Your task to perform on an android device: Open Maps and search for coffee Image 0: 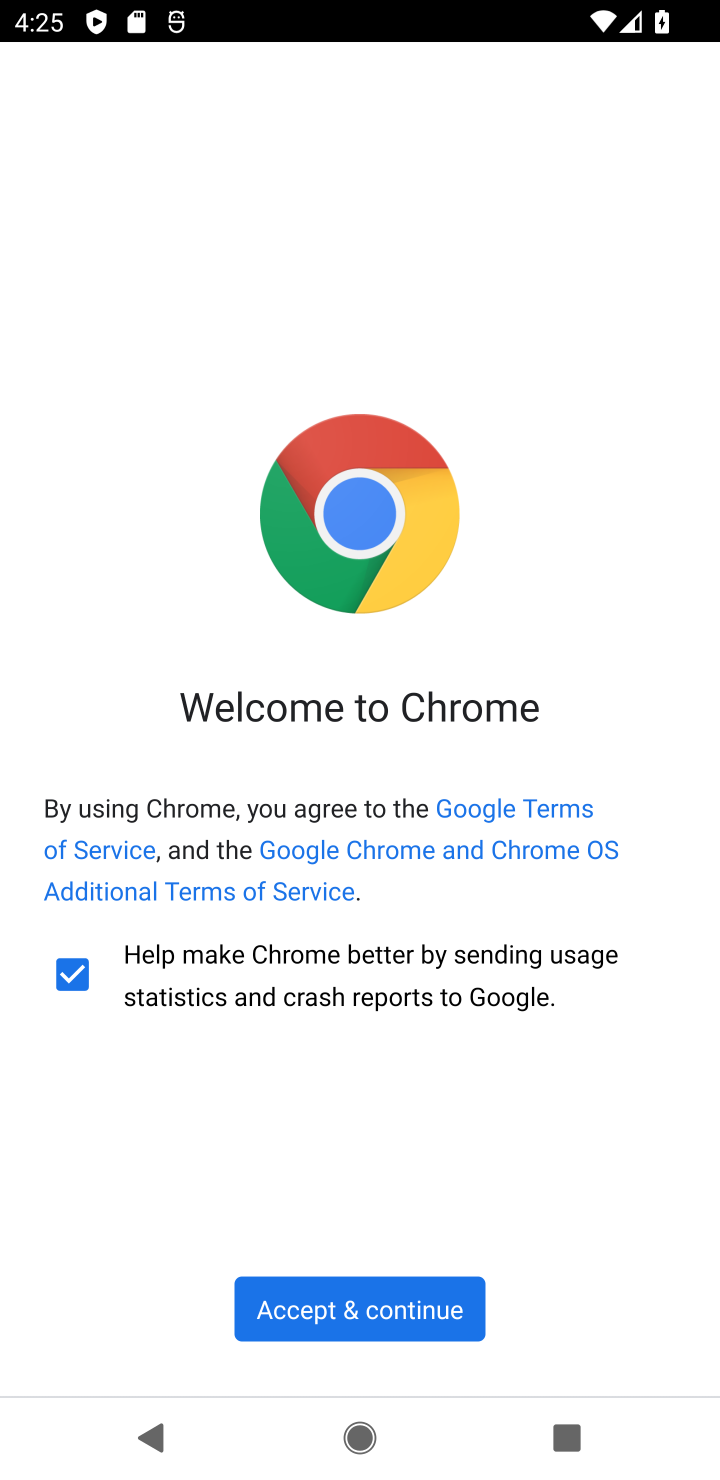
Step 0: click (404, 1332)
Your task to perform on an android device: Open Maps and search for coffee Image 1: 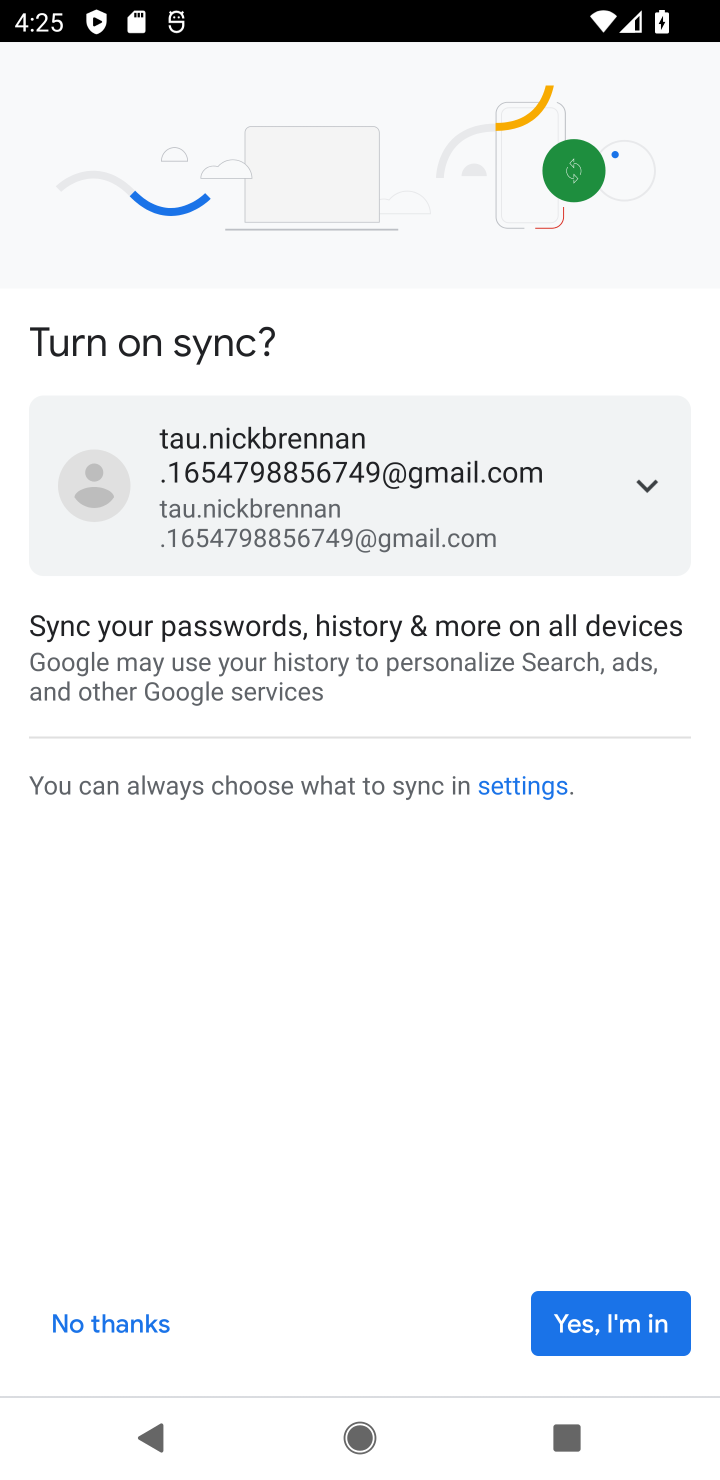
Step 1: press home button
Your task to perform on an android device: Open Maps and search for coffee Image 2: 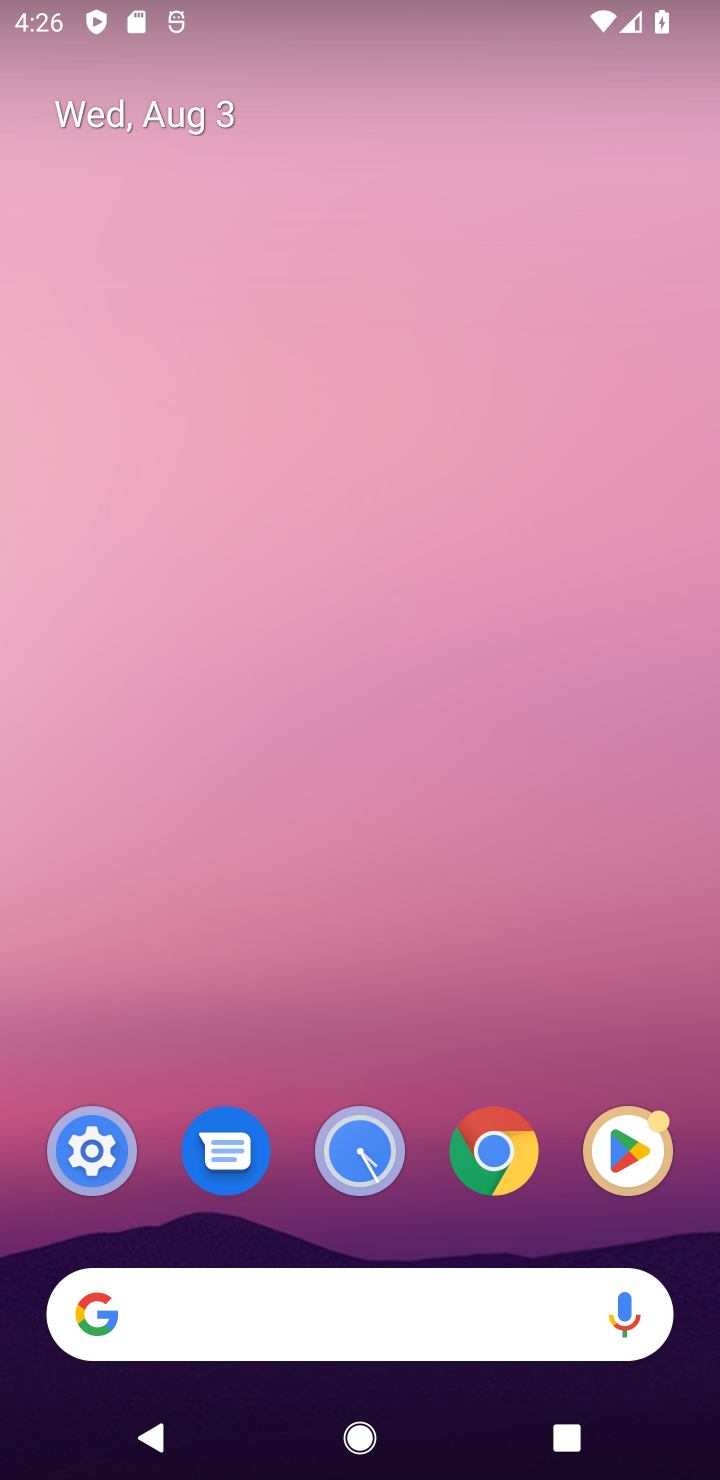
Step 2: drag from (487, 1047) to (433, 205)
Your task to perform on an android device: Open Maps and search for coffee Image 3: 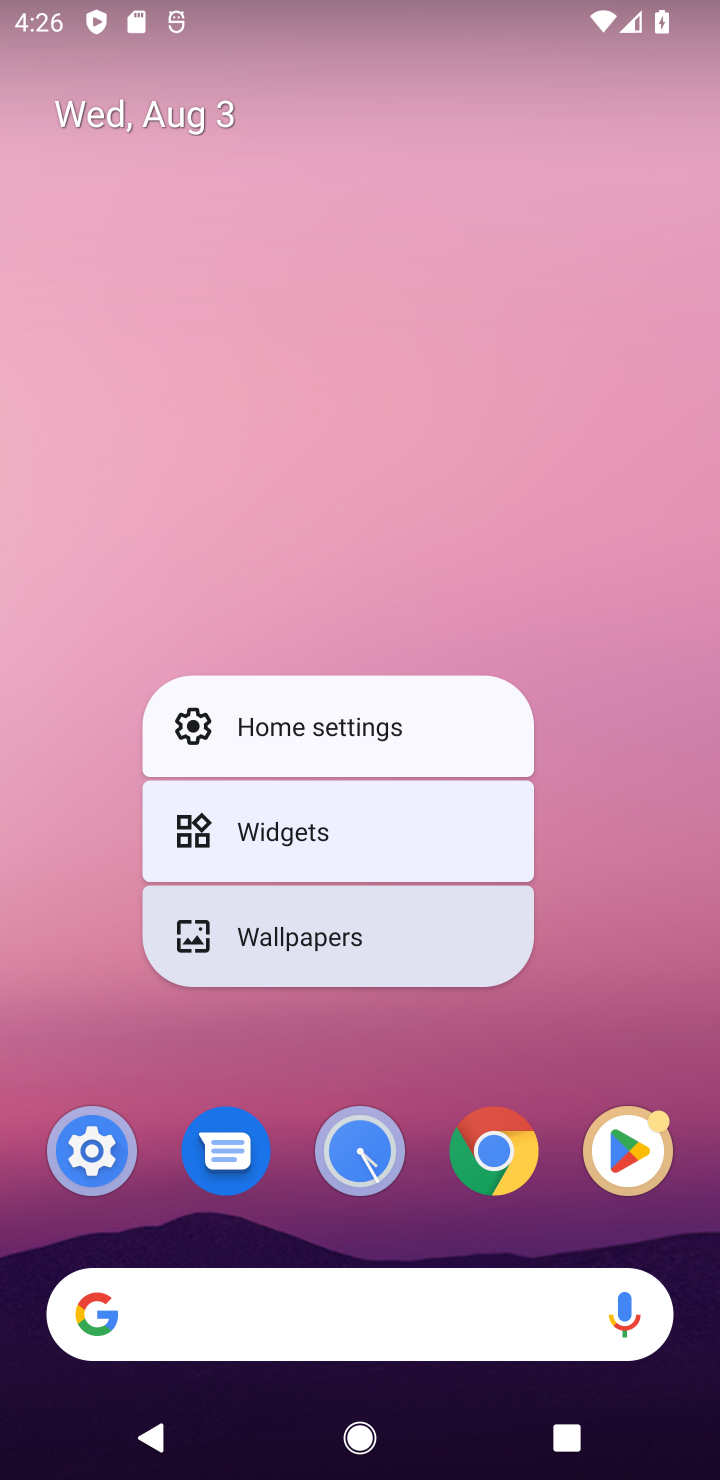
Step 3: click (650, 958)
Your task to perform on an android device: Open Maps and search for coffee Image 4: 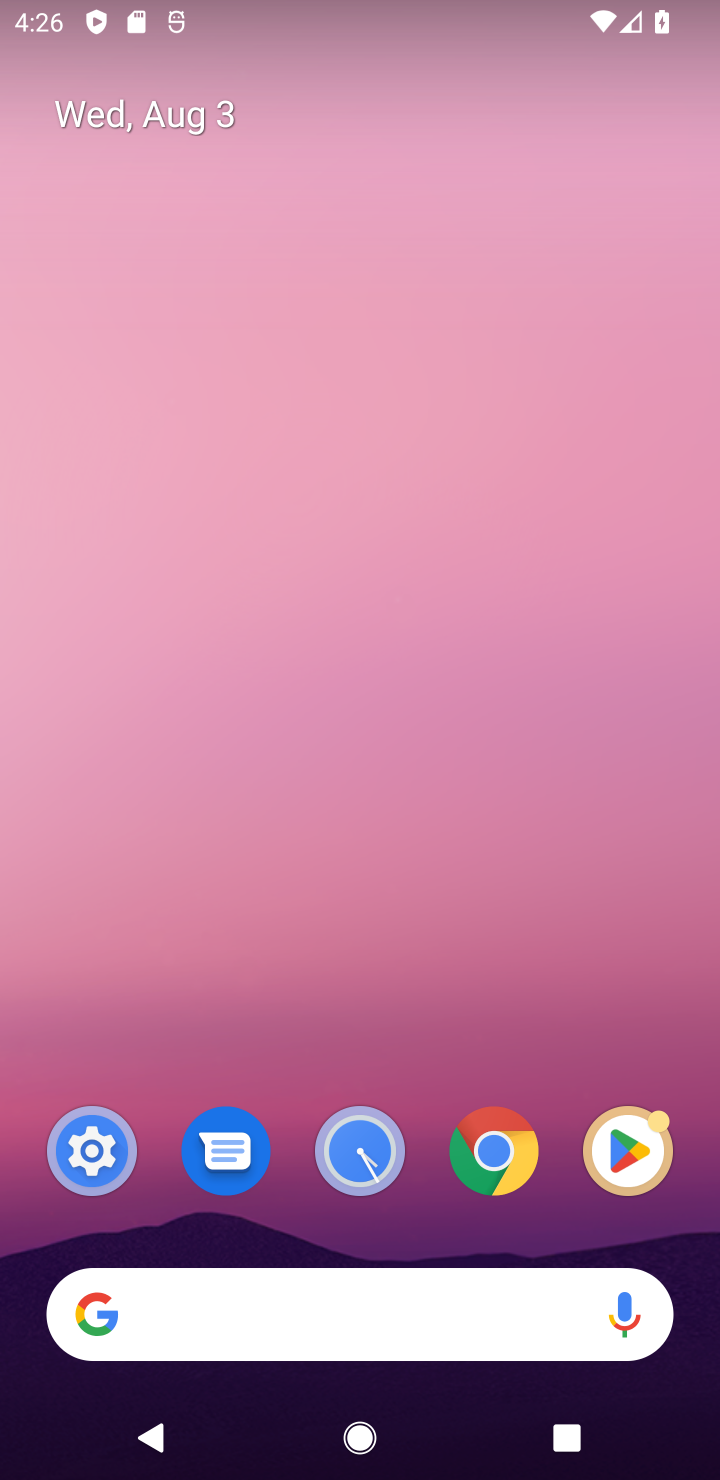
Step 4: drag from (649, 1043) to (559, 316)
Your task to perform on an android device: Open Maps and search for coffee Image 5: 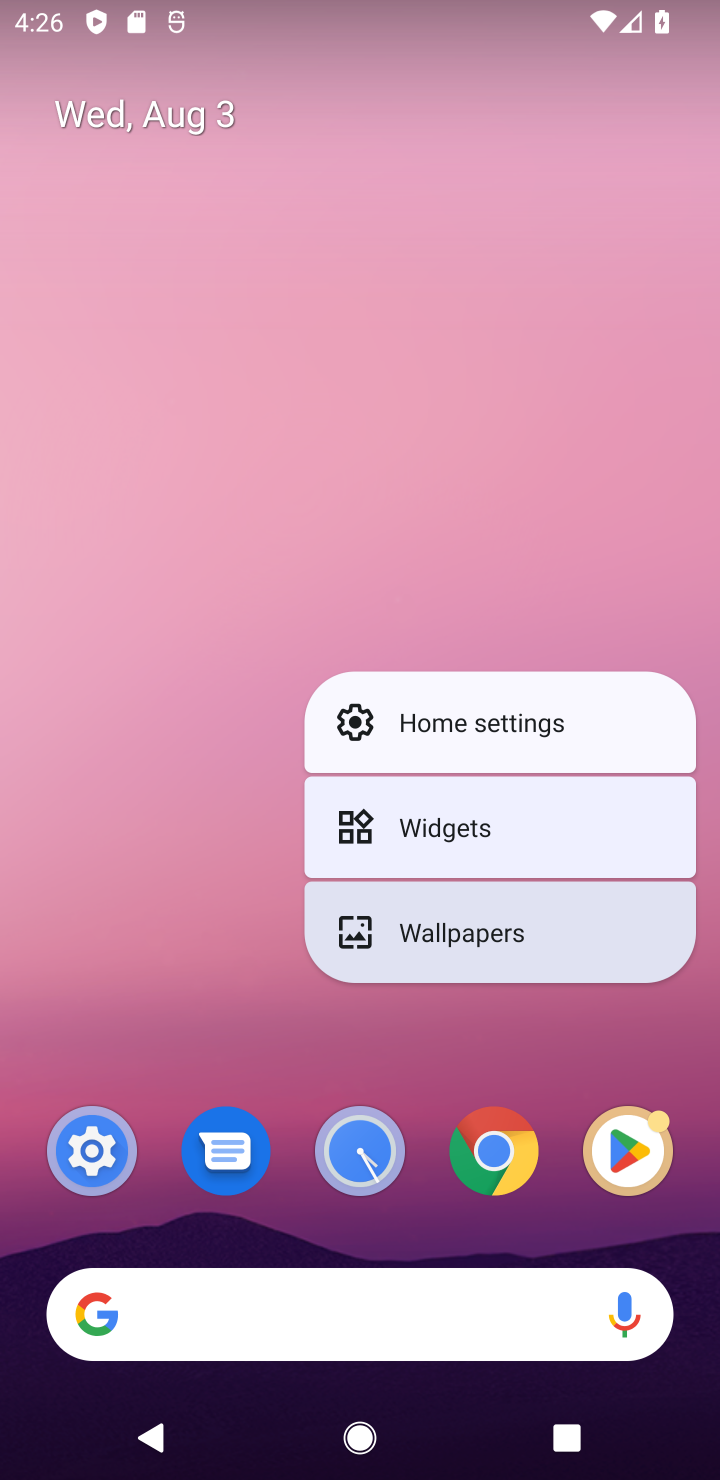
Step 5: click (197, 1029)
Your task to perform on an android device: Open Maps and search for coffee Image 6: 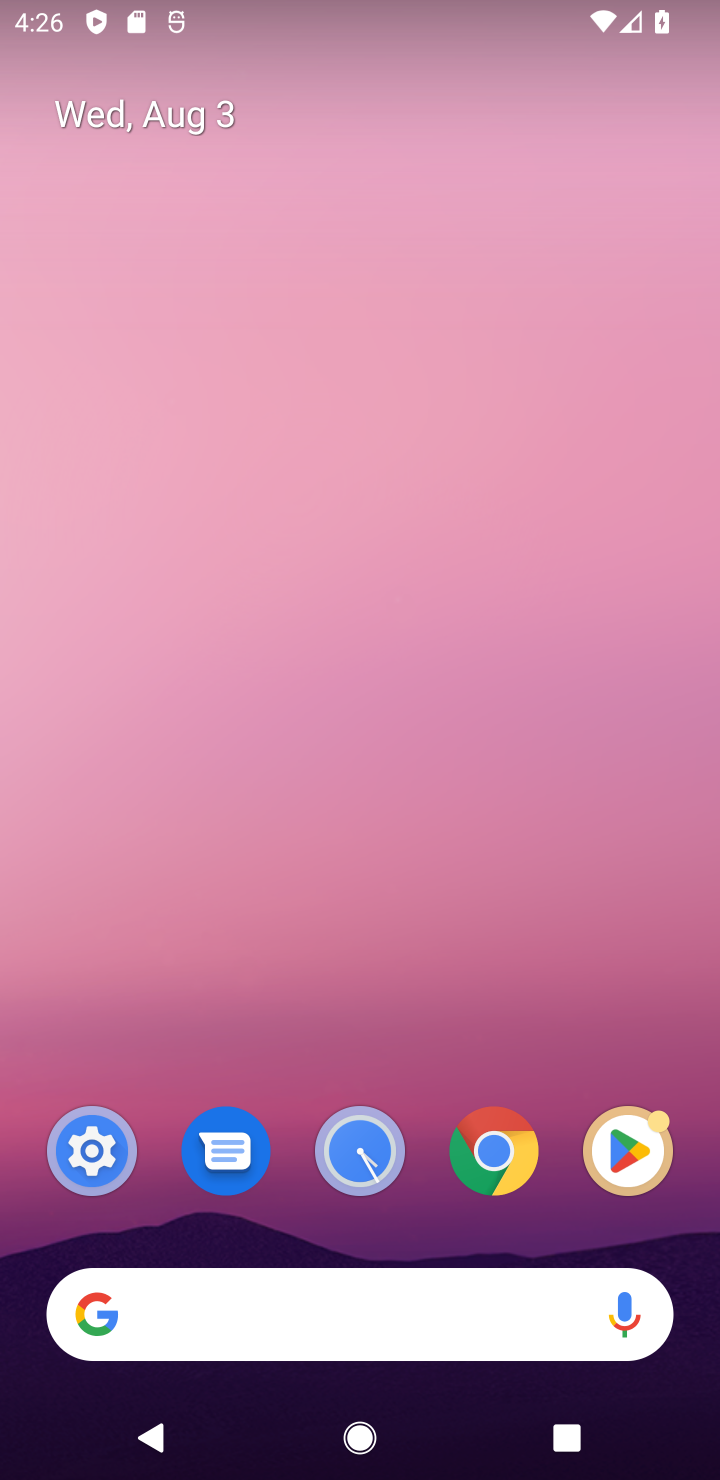
Step 6: drag from (261, 1072) to (297, 215)
Your task to perform on an android device: Open Maps and search for coffee Image 7: 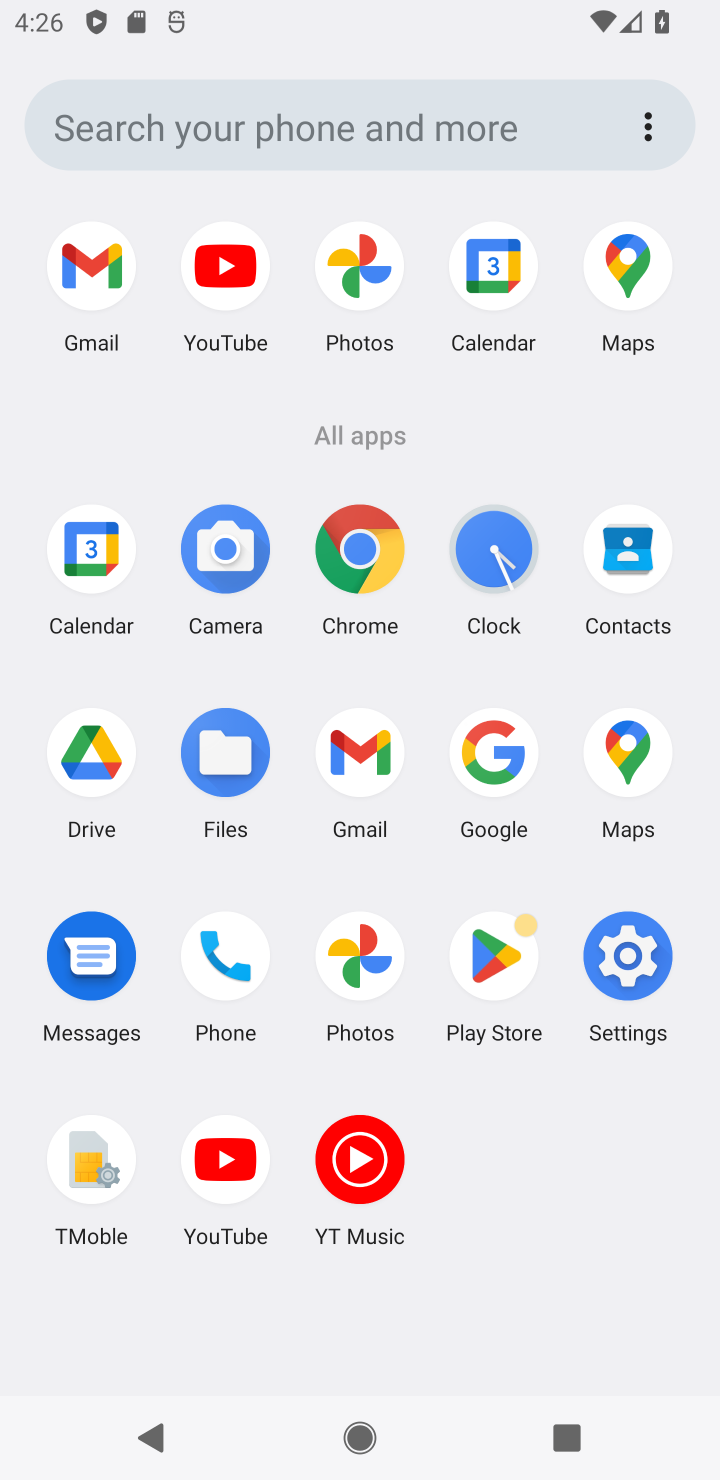
Step 7: click (620, 738)
Your task to perform on an android device: Open Maps and search for coffee Image 8: 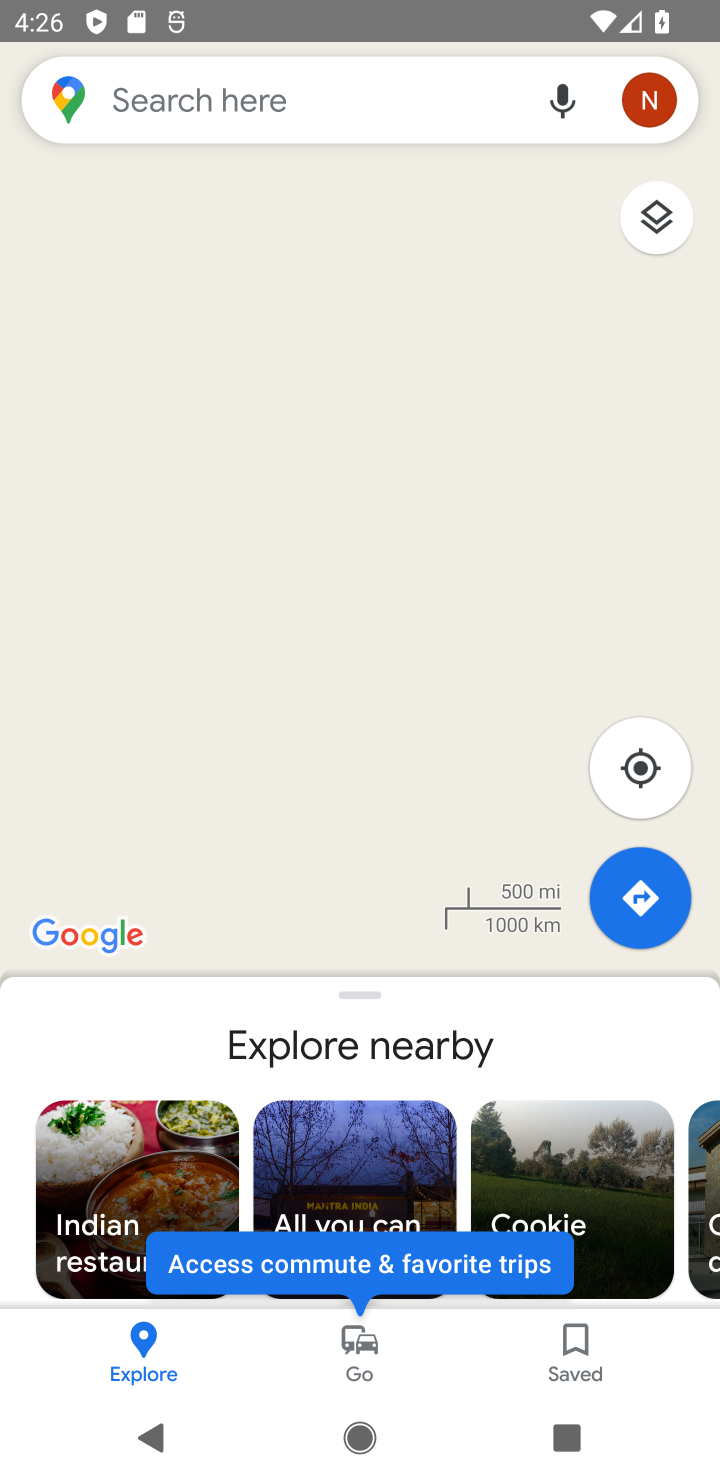
Step 8: click (257, 109)
Your task to perform on an android device: Open Maps and search for coffee Image 9: 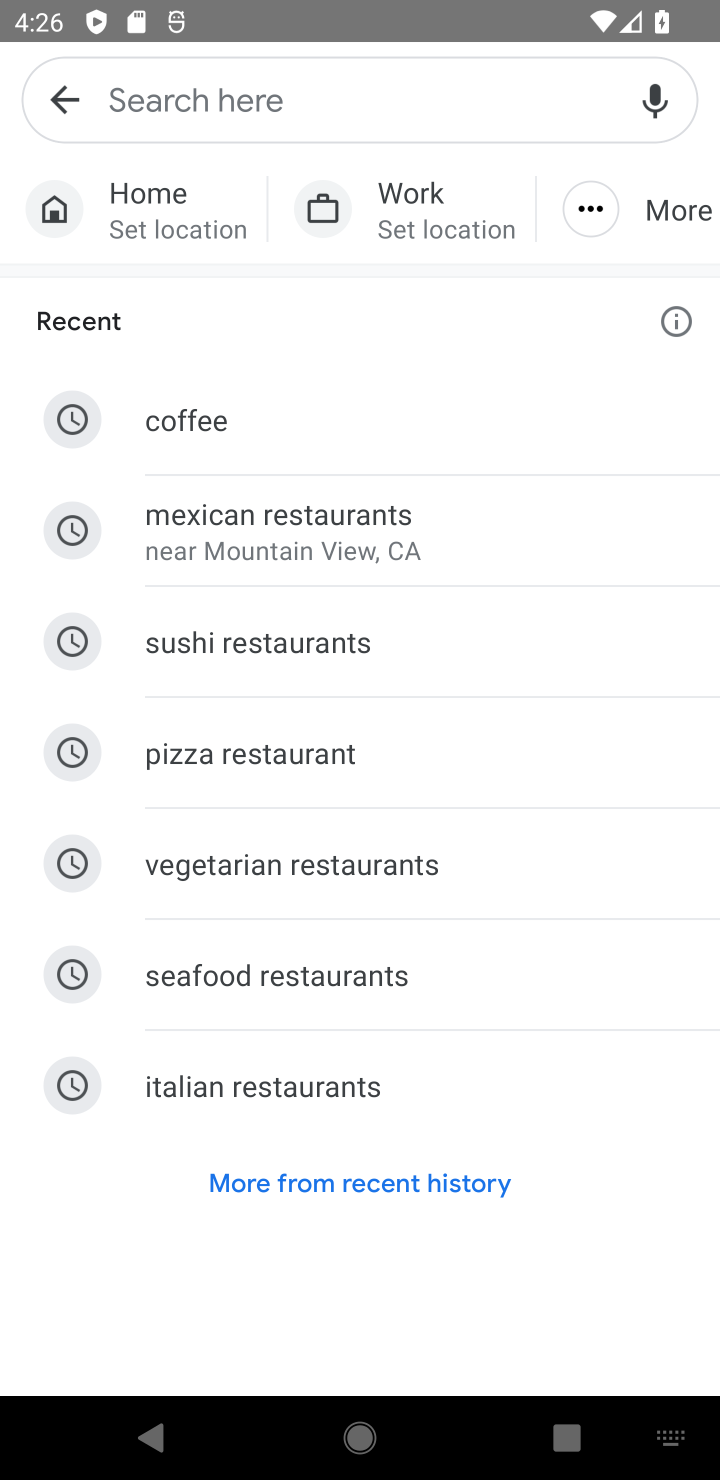
Step 9: type "coffee"
Your task to perform on an android device: Open Maps and search for coffee Image 10: 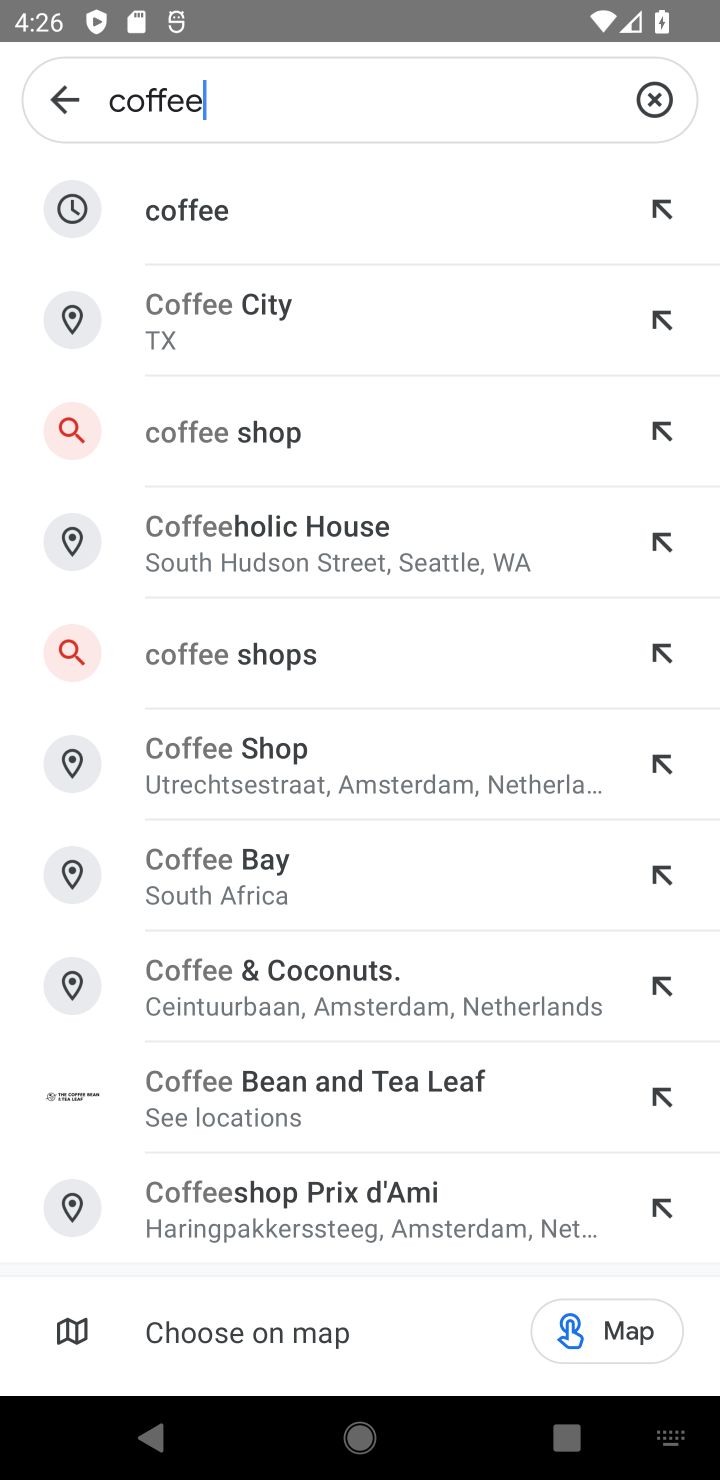
Step 10: click (381, 207)
Your task to perform on an android device: Open Maps and search for coffee Image 11: 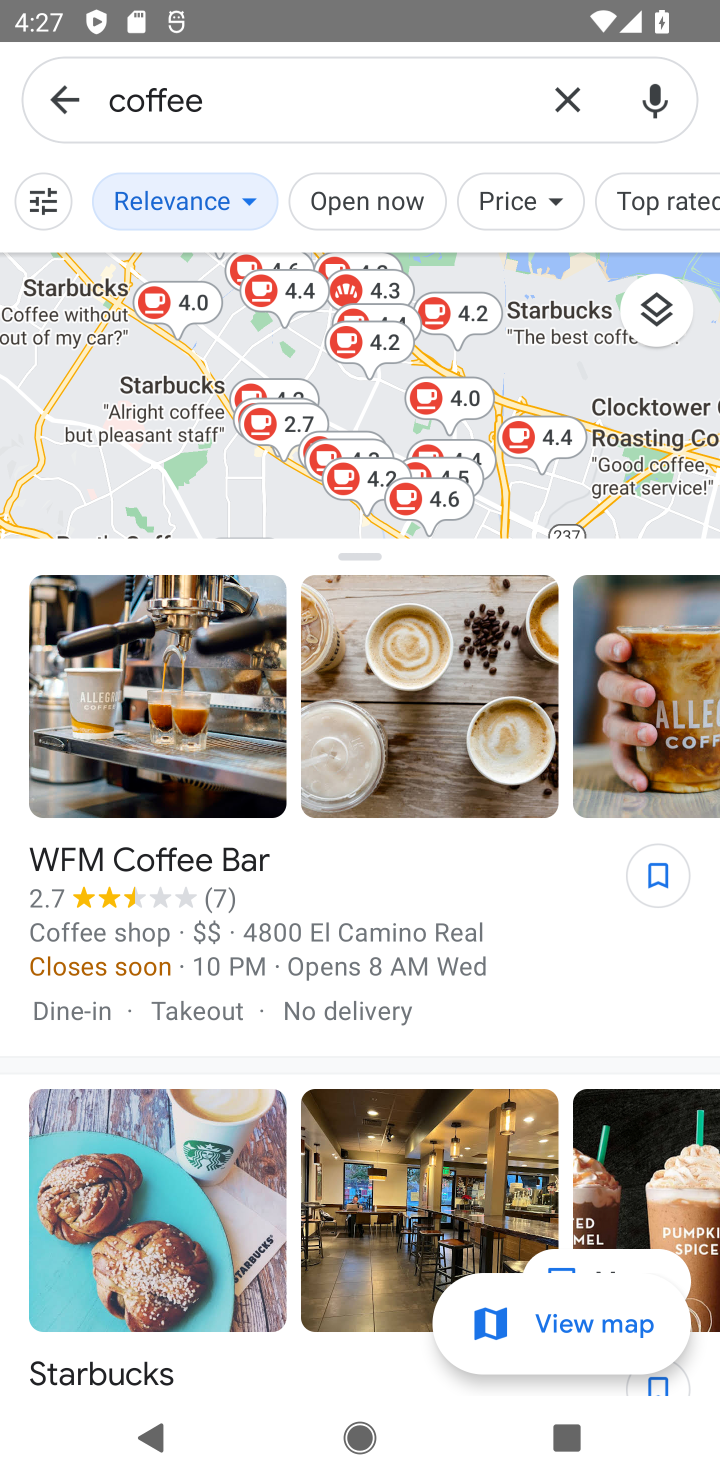
Step 11: task complete